Your task to perform on an android device: Search for Italian restaurants on Maps Image 0: 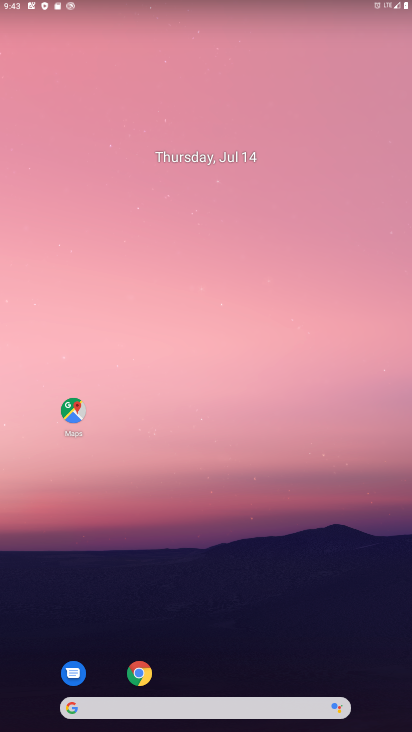
Step 0: click (74, 417)
Your task to perform on an android device: Search for Italian restaurants on Maps Image 1: 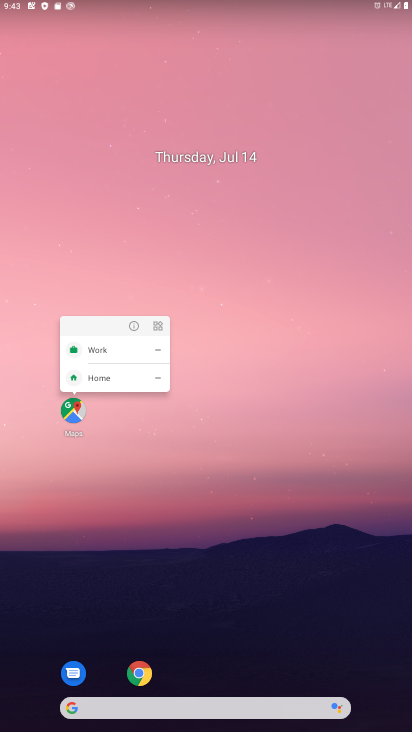
Step 1: click (74, 417)
Your task to perform on an android device: Search for Italian restaurants on Maps Image 2: 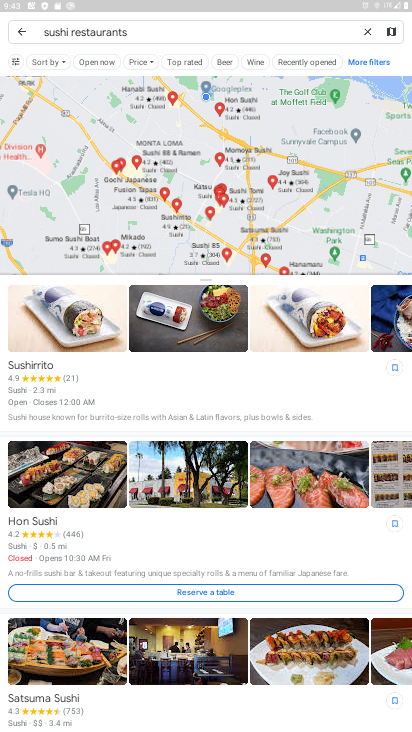
Step 2: click (367, 35)
Your task to perform on an android device: Search for Italian restaurants on Maps Image 3: 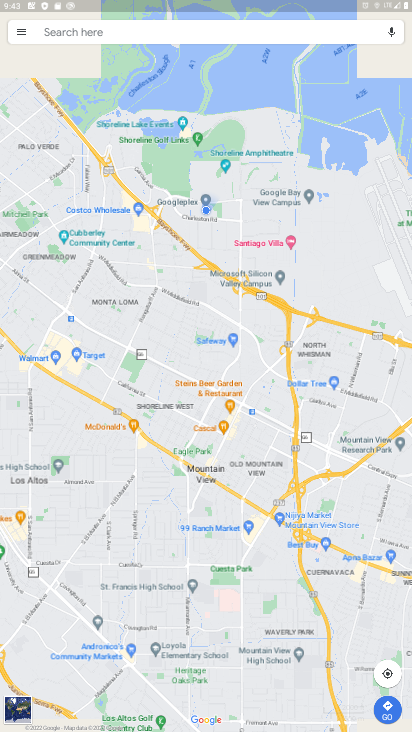
Step 3: click (193, 34)
Your task to perform on an android device: Search for Italian restaurants on Maps Image 4: 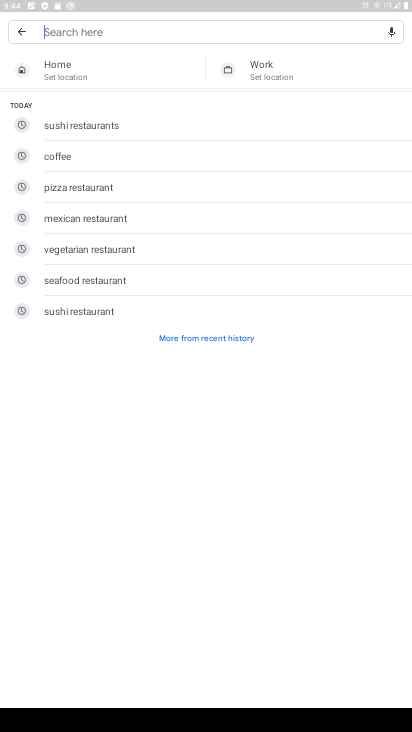
Step 4: type "Italian restaurants"
Your task to perform on an android device: Search for Italian restaurants on Maps Image 5: 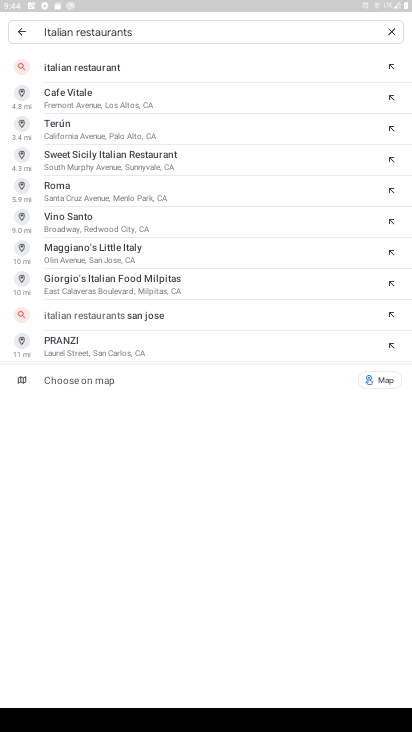
Step 5: click (109, 71)
Your task to perform on an android device: Search for Italian restaurants on Maps Image 6: 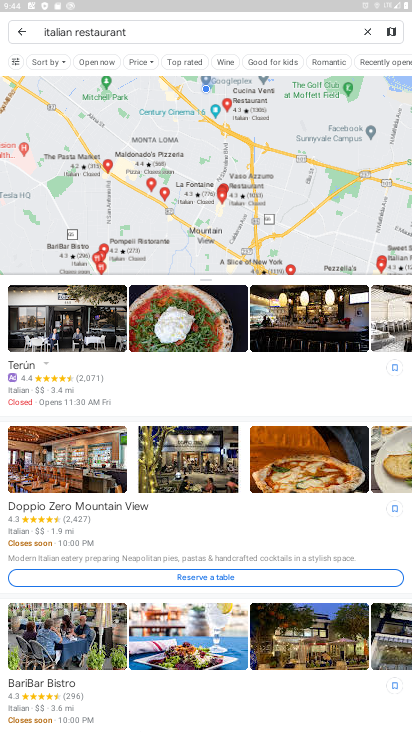
Step 6: task complete